Your task to perform on an android device: Open Maps and search for coffee Image 0: 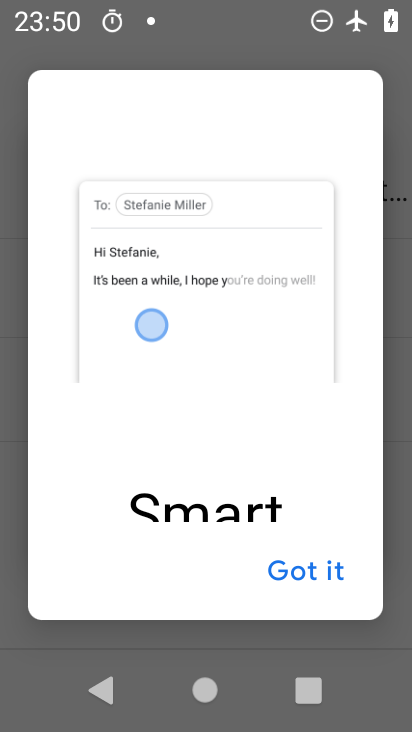
Step 0: click (283, 542)
Your task to perform on an android device: Open Maps and search for coffee Image 1: 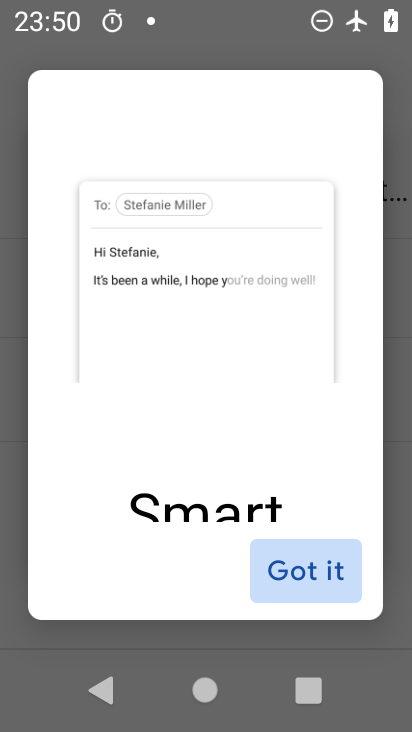
Step 1: click (293, 554)
Your task to perform on an android device: Open Maps and search for coffee Image 2: 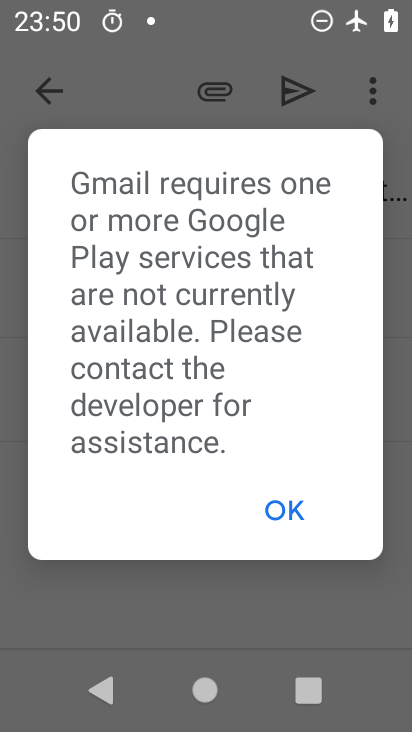
Step 2: click (288, 494)
Your task to perform on an android device: Open Maps and search for coffee Image 3: 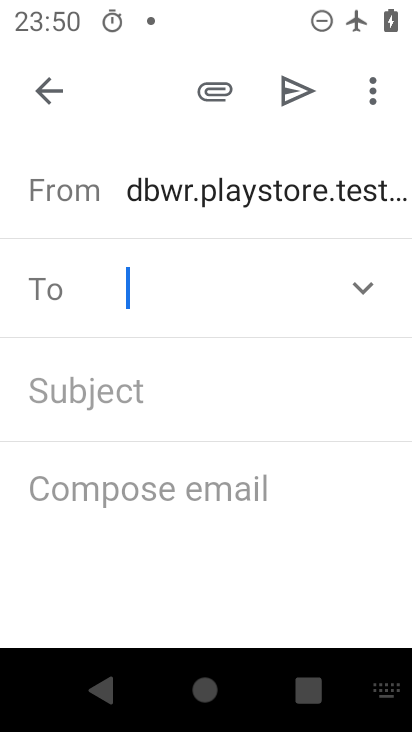
Step 3: press home button
Your task to perform on an android device: Open Maps and search for coffee Image 4: 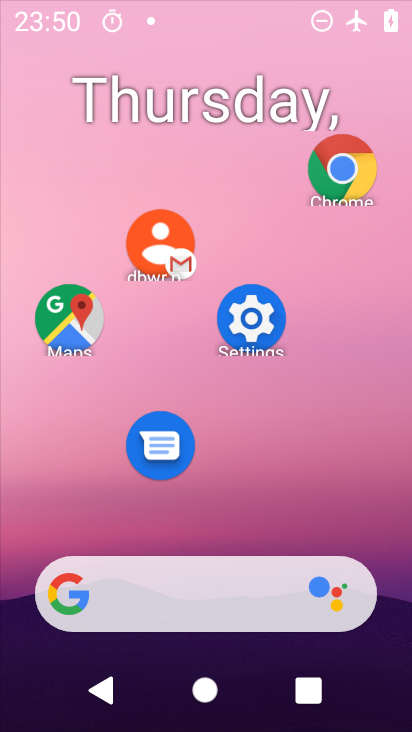
Step 4: drag from (235, 407) to (308, 74)
Your task to perform on an android device: Open Maps and search for coffee Image 5: 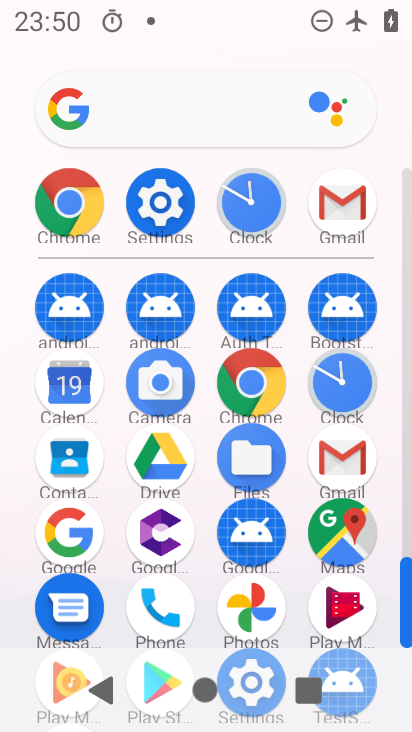
Step 5: click (344, 546)
Your task to perform on an android device: Open Maps and search for coffee Image 6: 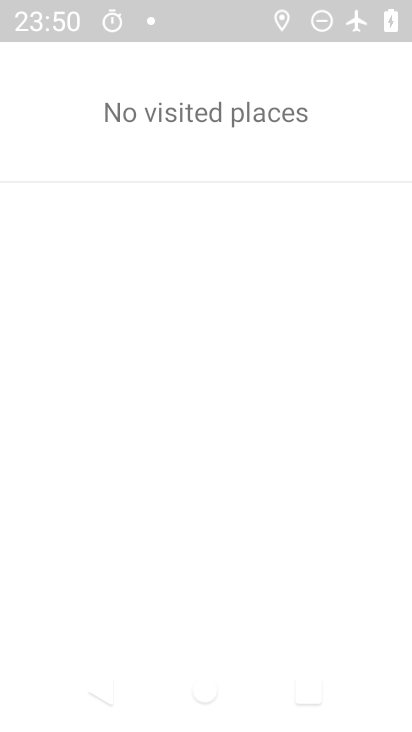
Step 6: drag from (219, 264) to (307, 687)
Your task to perform on an android device: Open Maps and search for coffee Image 7: 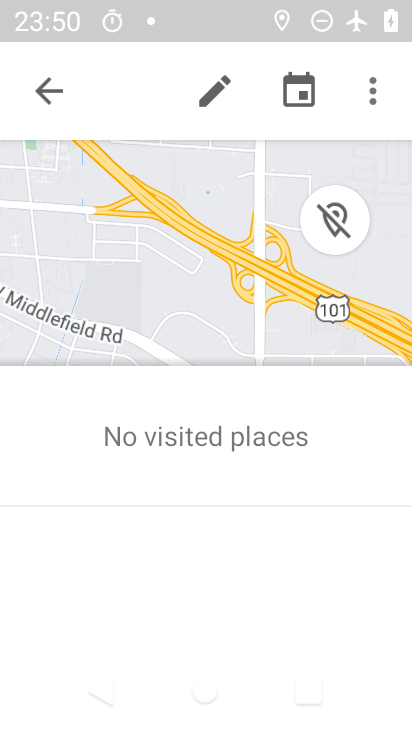
Step 7: click (34, 89)
Your task to perform on an android device: Open Maps and search for coffee Image 8: 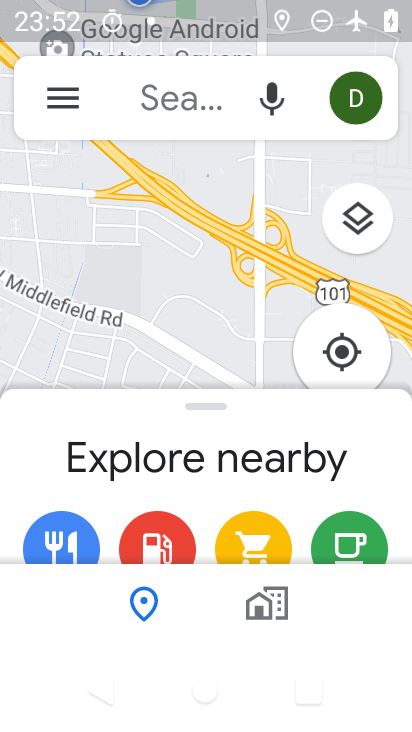
Step 8: click (154, 95)
Your task to perform on an android device: Open Maps and search for coffee Image 9: 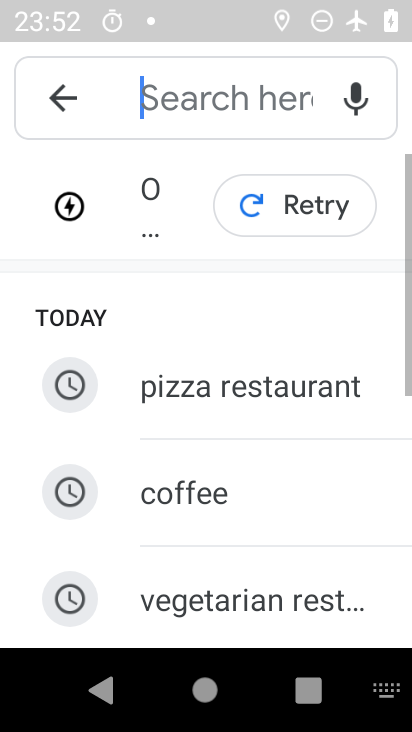
Step 9: click (212, 492)
Your task to perform on an android device: Open Maps and search for coffee Image 10: 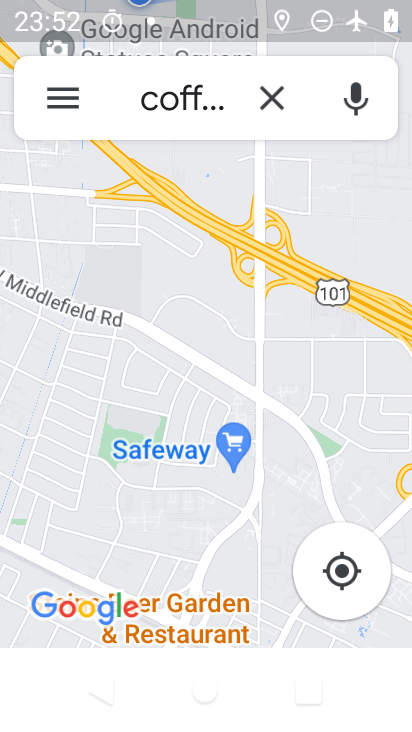
Step 10: task complete